Your task to perform on an android device: change the clock display to digital Image 0: 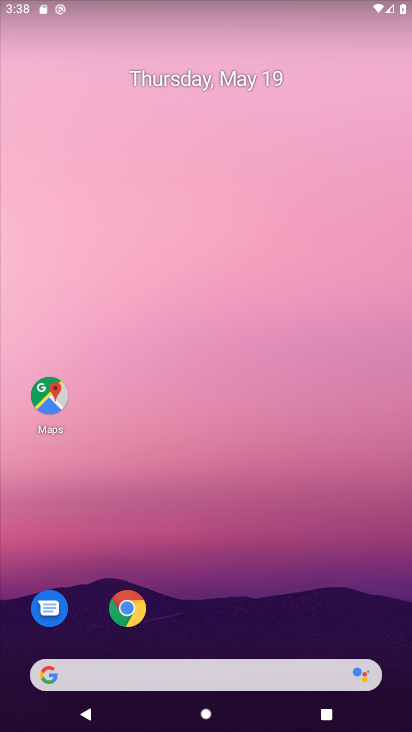
Step 0: drag from (228, 648) to (218, 323)
Your task to perform on an android device: change the clock display to digital Image 1: 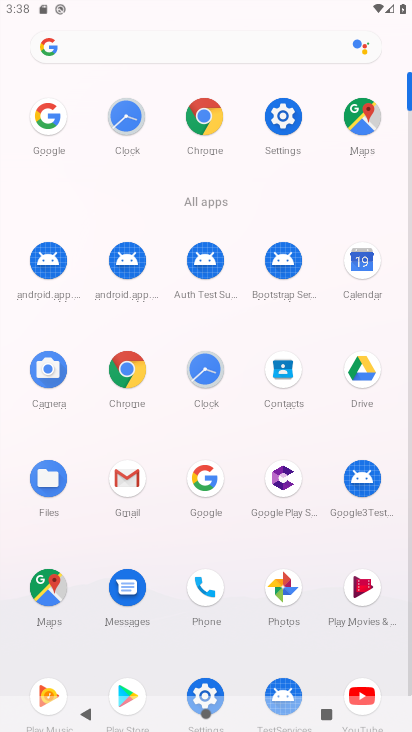
Step 1: click (212, 379)
Your task to perform on an android device: change the clock display to digital Image 2: 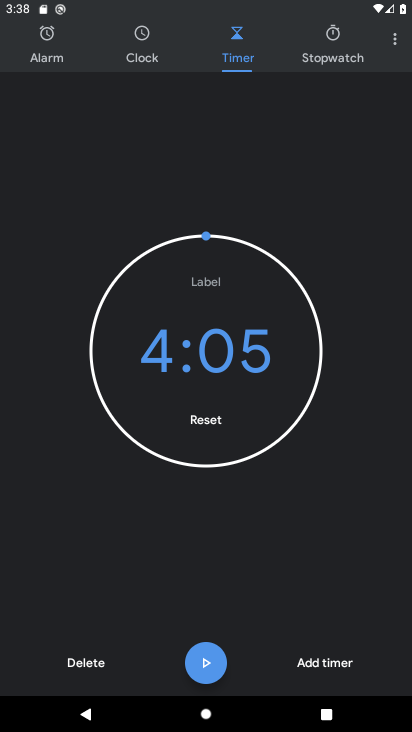
Step 2: click (400, 45)
Your task to perform on an android device: change the clock display to digital Image 3: 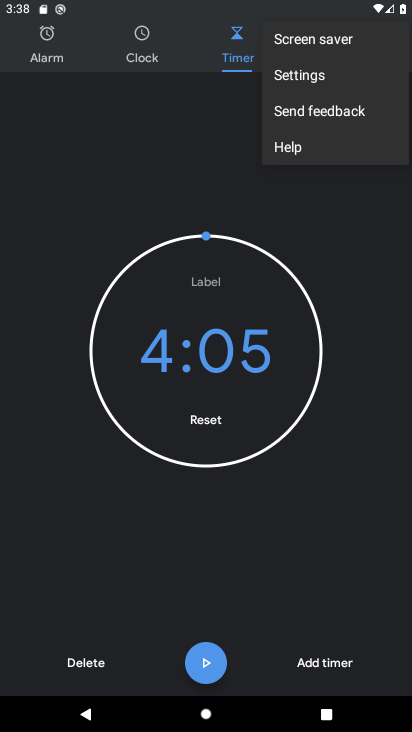
Step 3: click (325, 67)
Your task to perform on an android device: change the clock display to digital Image 4: 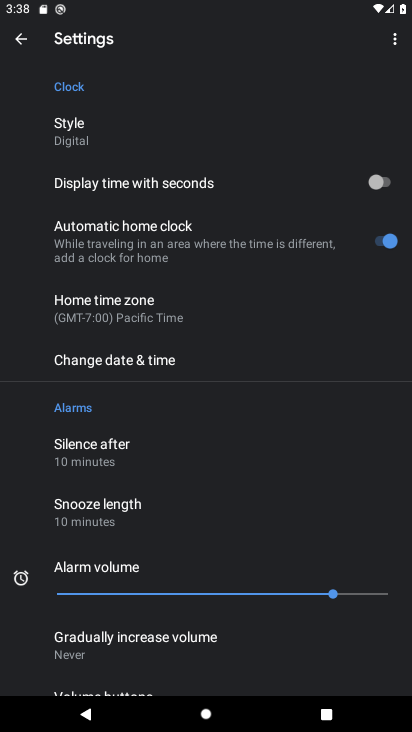
Step 4: click (79, 134)
Your task to perform on an android device: change the clock display to digital Image 5: 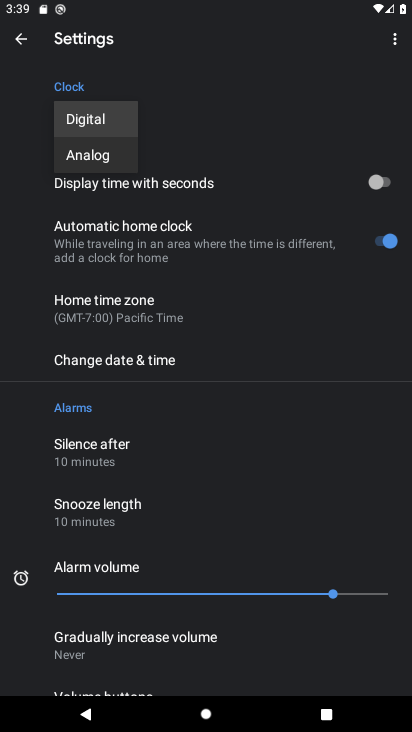
Step 5: task complete